Your task to perform on an android device: delete browsing data in the chrome app Image 0: 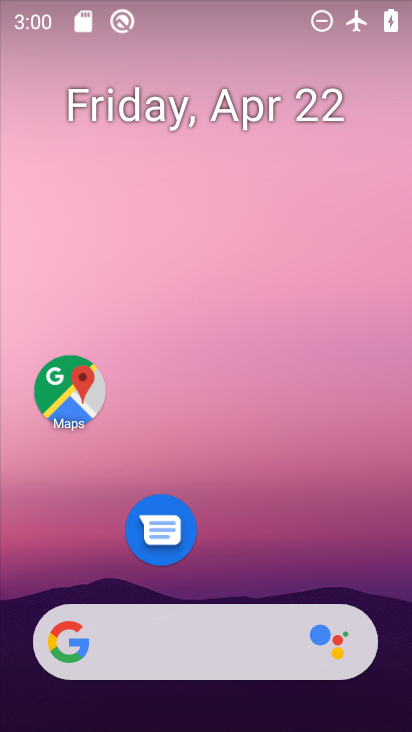
Step 0: drag from (289, 583) to (271, 61)
Your task to perform on an android device: delete browsing data in the chrome app Image 1: 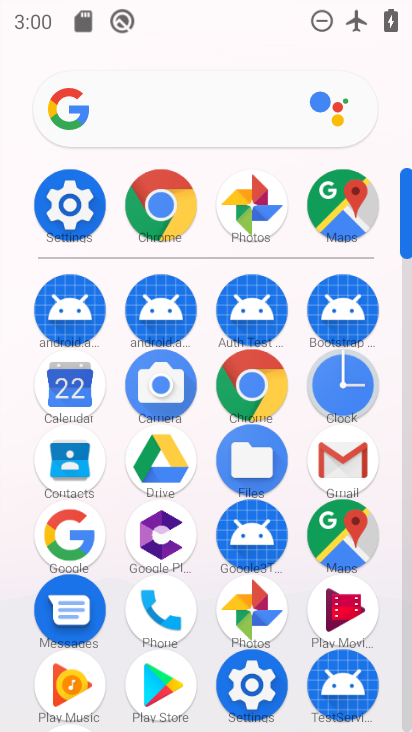
Step 1: click (158, 213)
Your task to perform on an android device: delete browsing data in the chrome app Image 2: 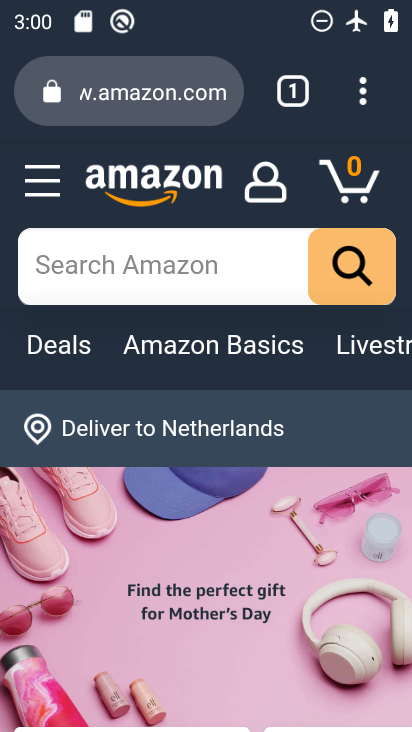
Step 2: click (361, 110)
Your task to perform on an android device: delete browsing data in the chrome app Image 3: 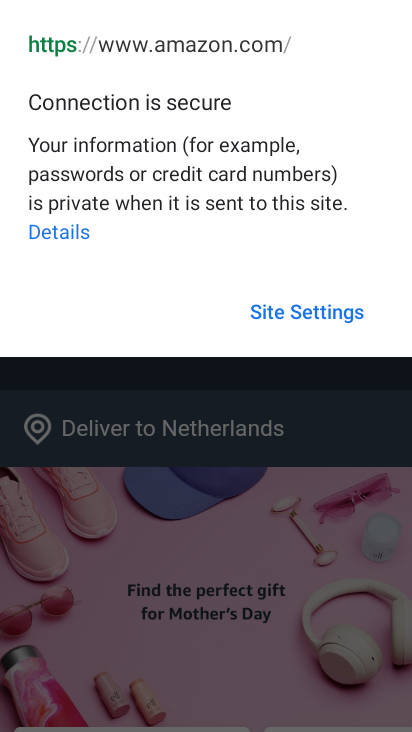
Step 3: click (321, 385)
Your task to perform on an android device: delete browsing data in the chrome app Image 4: 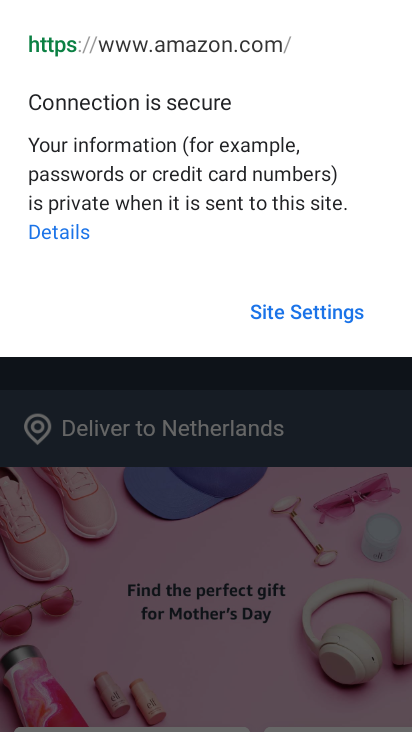
Step 4: click (175, 380)
Your task to perform on an android device: delete browsing data in the chrome app Image 5: 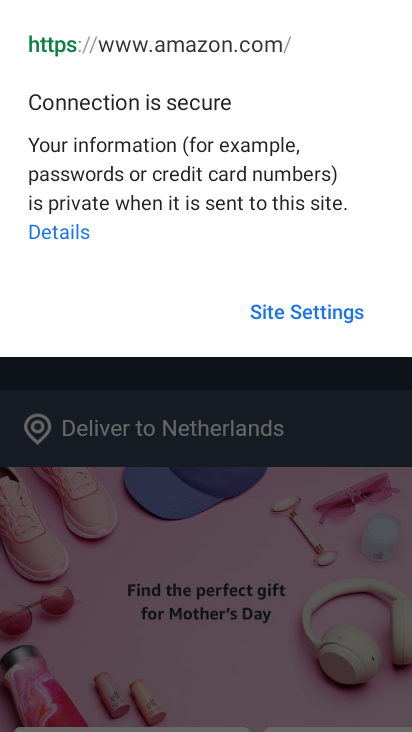
Step 5: click (319, 399)
Your task to perform on an android device: delete browsing data in the chrome app Image 6: 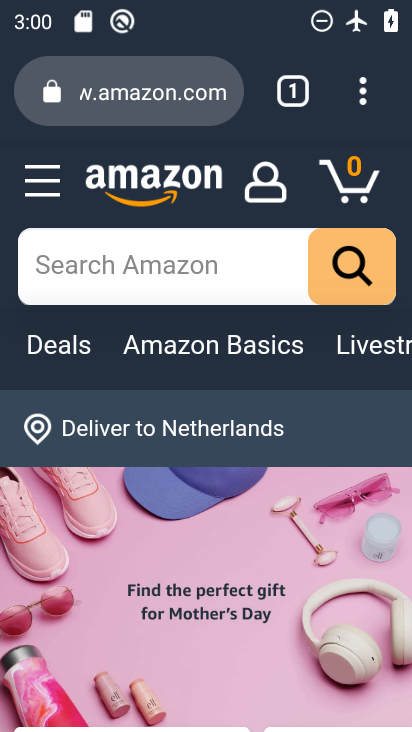
Step 6: click (358, 103)
Your task to perform on an android device: delete browsing data in the chrome app Image 7: 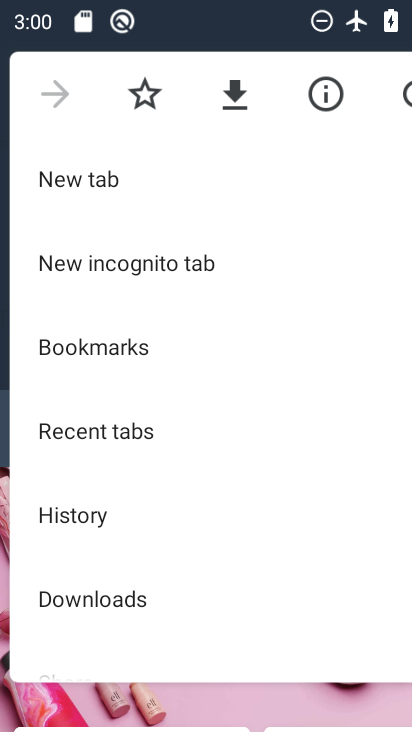
Step 7: click (83, 513)
Your task to perform on an android device: delete browsing data in the chrome app Image 8: 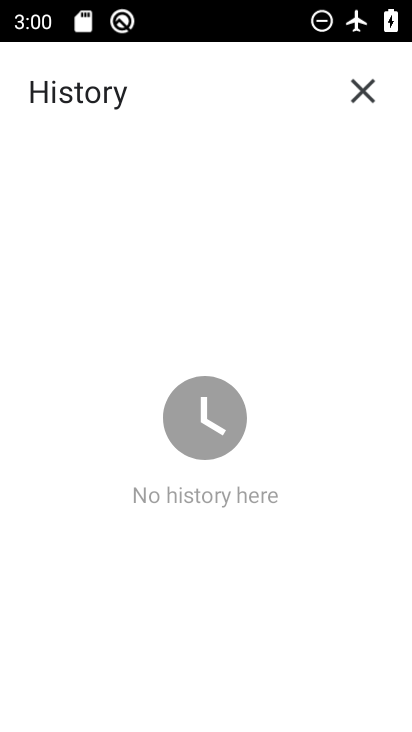
Step 8: task complete